Your task to perform on an android device: turn off sleep mode Image 0: 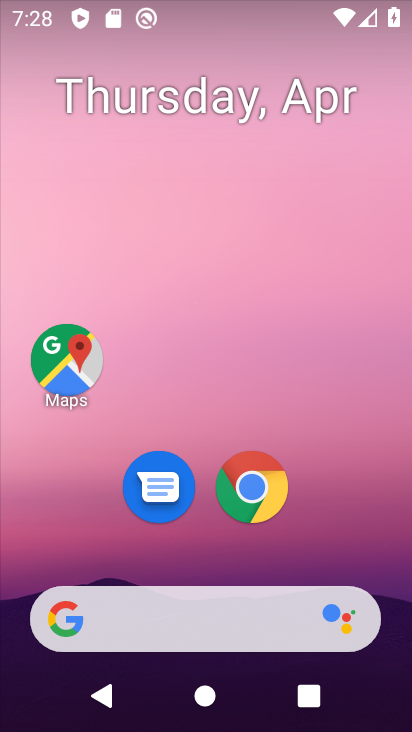
Step 0: drag from (352, 548) to (296, 143)
Your task to perform on an android device: turn off sleep mode Image 1: 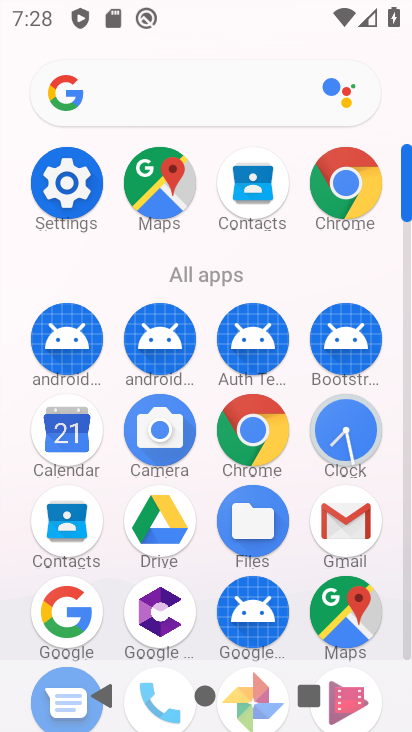
Step 1: click (57, 188)
Your task to perform on an android device: turn off sleep mode Image 2: 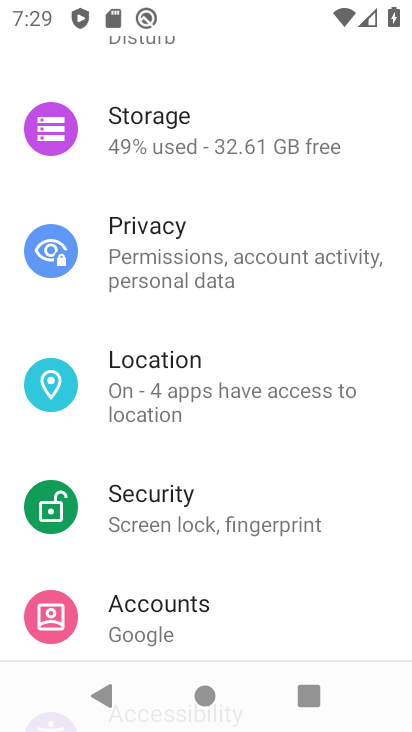
Step 2: task complete